Your task to perform on an android device: set the timer Image 0: 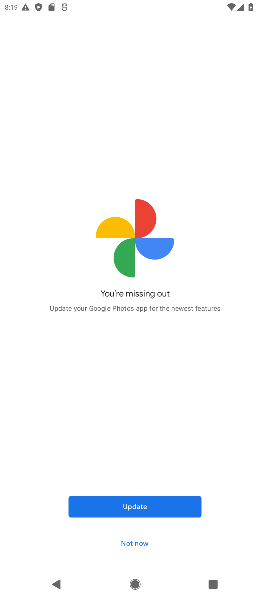
Step 0: press back button
Your task to perform on an android device: set the timer Image 1: 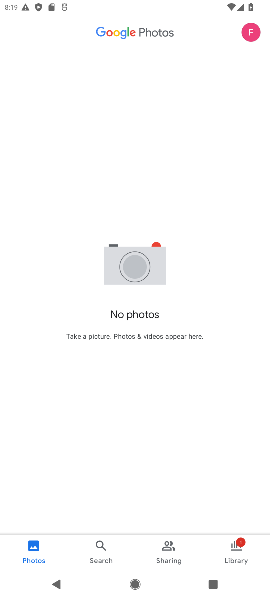
Step 1: press home button
Your task to perform on an android device: set the timer Image 2: 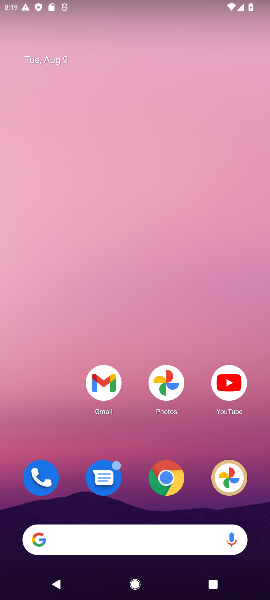
Step 2: drag from (199, 356) to (162, 60)
Your task to perform on an android device: set the timer Image 3: 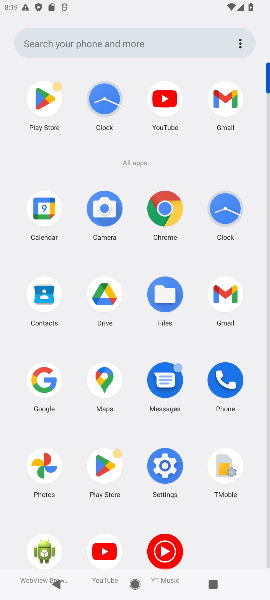
Step 3: click (218, 219)
Your task to perform on an android device: set the timer Image 4: 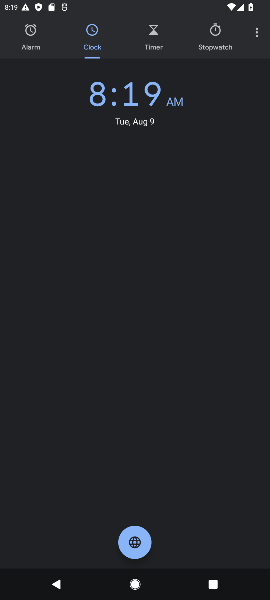
Step 4: click (158, 50)
Your task to perform on an android device: set the timer Image 5: 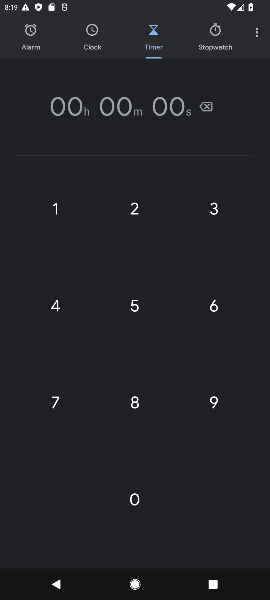
Step 5: click (61, 209)
Your task to perform on an android device: set the timer Image 6: 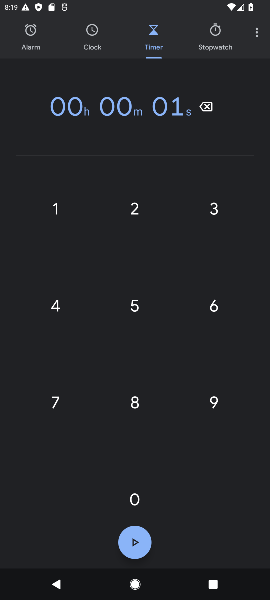
Step 6: click (139, 505)
Your task to perform on an android device: set the timer Image 7: 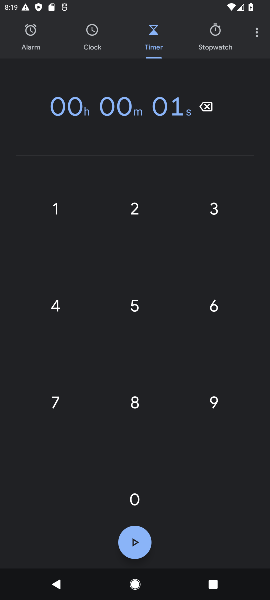
Step 7: click (139, 505)
Your task to perform on an android device: set the timer Image 8: 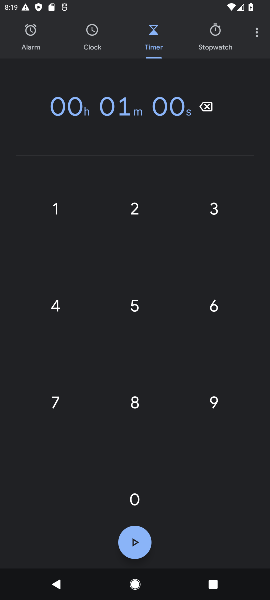
Step 8: click (139, 505)
Your task to perform on an android device: set the timer Image 9: 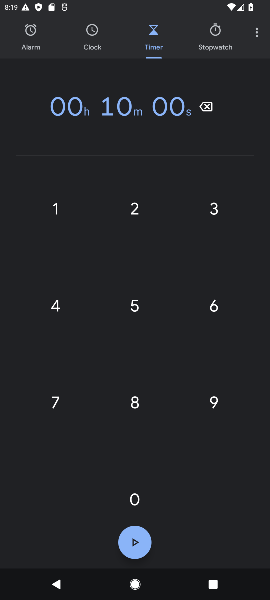
Step 9: click (139, 505)
Your task to perform on an android device: set the timer Image 10: 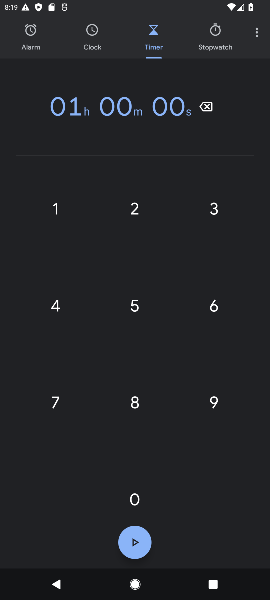
Step 10: click (139, 505)
Your task to perform on an android device: set the timer Image 11: 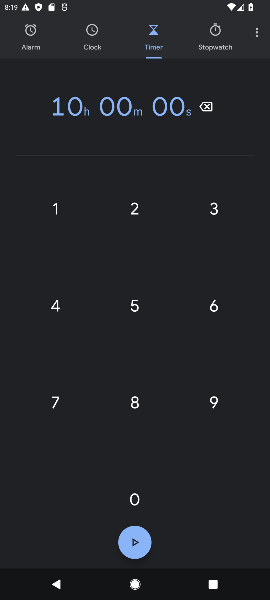
Step 11: click (140, 553)
Your task to perform on an android device: set the timer Image 12: 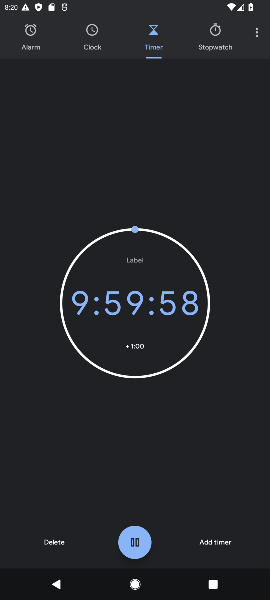
Step 12: task complete